Your task to perform on an android device: Go to Wikipedia Image 0: 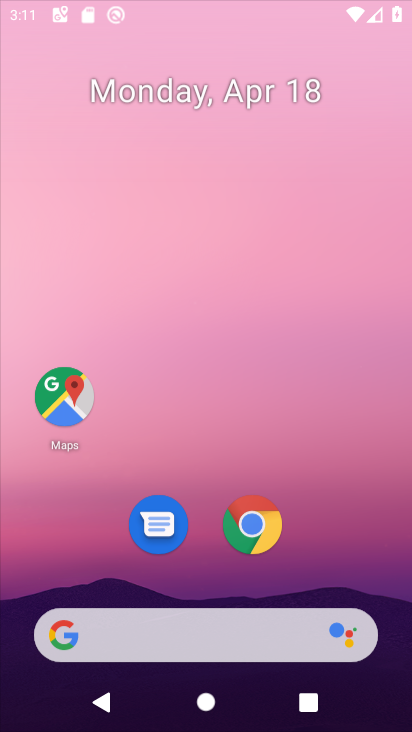
Step 0: click (158, 107)
Your task to perform on an android device: Go to Wikipedia Image 1: 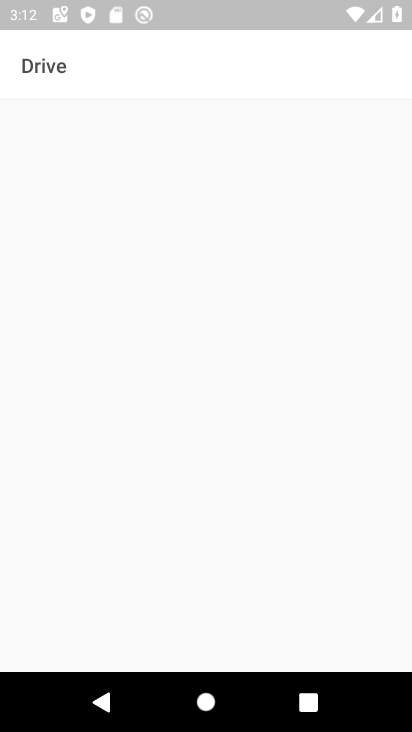
Step 1: press home button
Your task to perform on an android device: Go to Wikipedia Image 2: 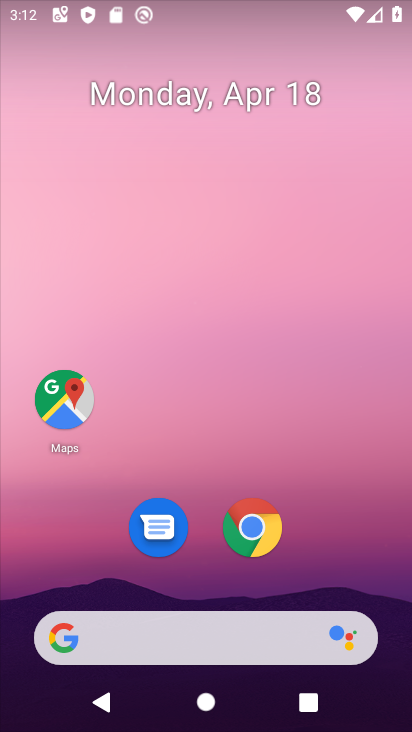
Step 2: click (262, 540)
Your task to perform on an android device: Go to Wikipedia Image 3: 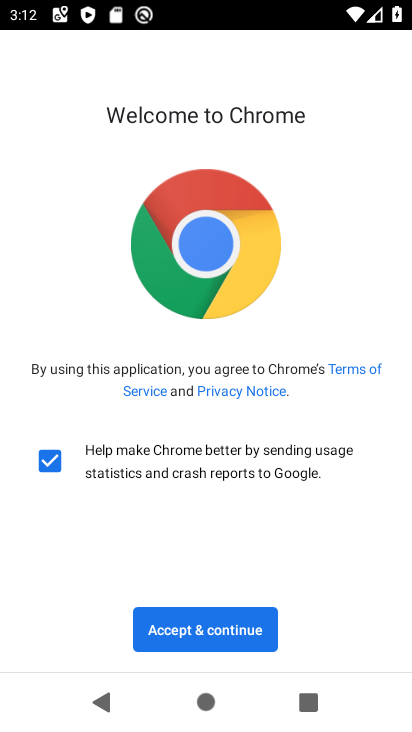
Step 3: click (196, 619)
Your task to perform on an android device: Go to Wikipedia Image 4: 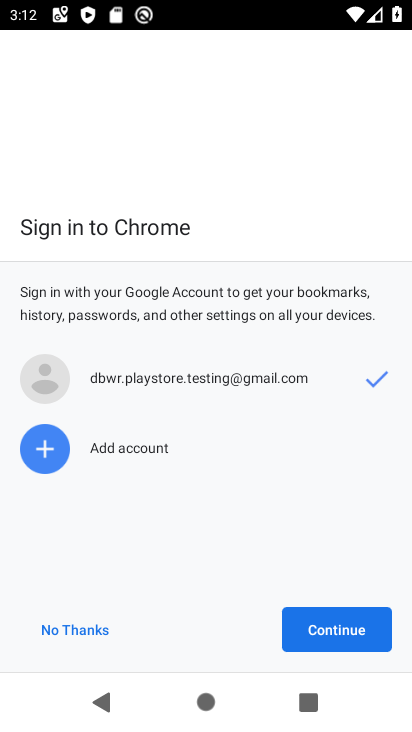
Step 4: click (325, 625)
Your task to perform on an android device: Go to Wikipedia Image 5: 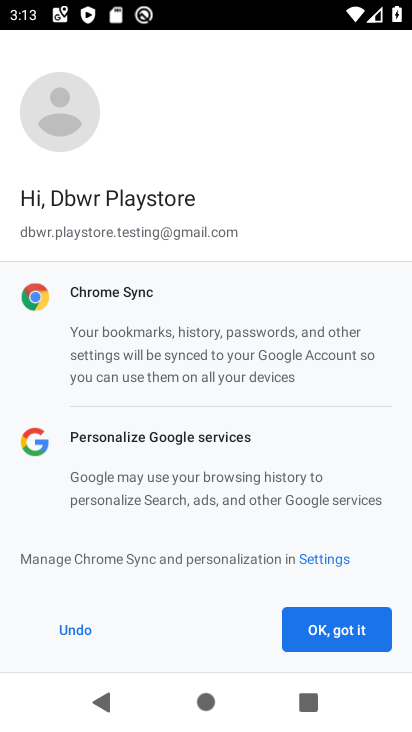
Step 5: click (304, 624)
Your task to perform on an android device: Go to Wikipedia Image 6: 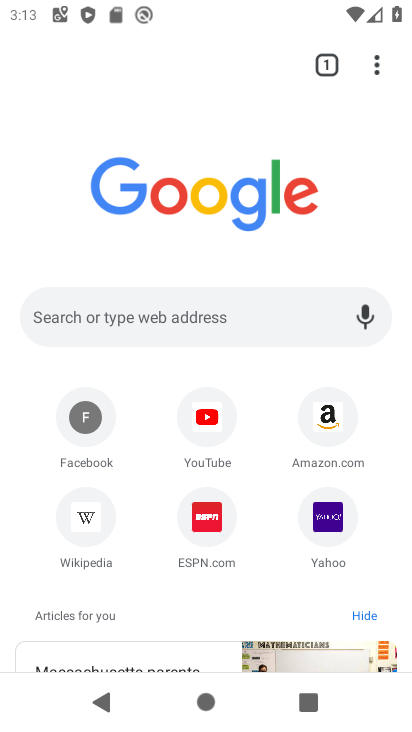
Step 6: click (83, 514)
Your task to perform on an android device: Go to Wikipedia Image 7: 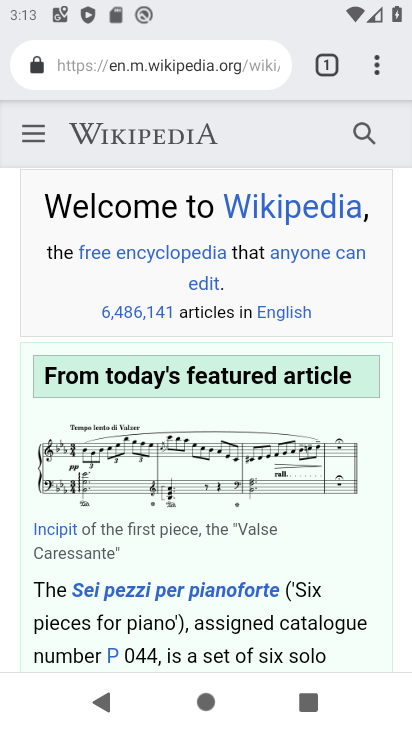
Step 7: task complete